Your task to perform on an android device: make emails show in primary in the gmail app Image 0: 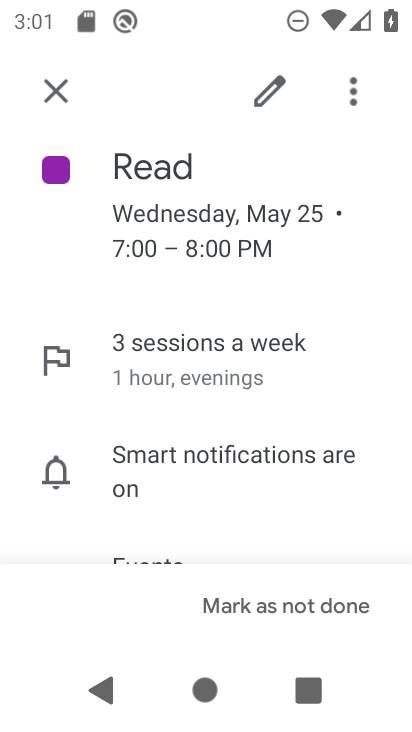
Step 0: press home button
Your task to perform on an android device: make emails show in primary in the gmail app Image 1: 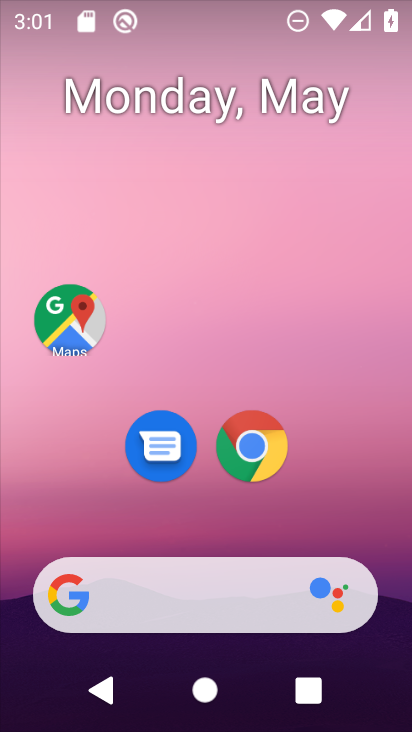
Step 1: drag from (203, 550) to (410, 212)
Your task to perform on an android device: make emails show in primary in the gmail app Image 2: 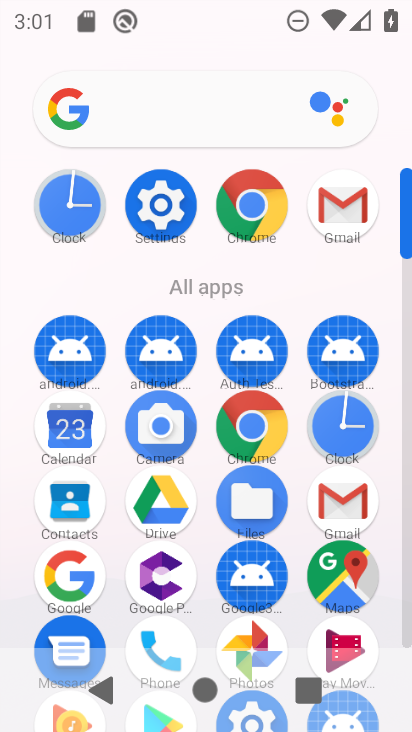
Step 2: click (336, 223)
Your task to perform on an android device: make emails show in primary in the gmail app Image 3: 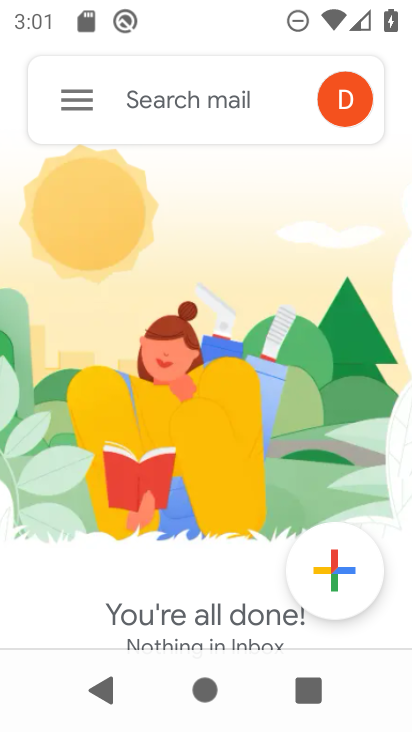
Step 3: click (118, 96)
Your task to perform on an android device: make emails show in primary in the gmail app Image 4: 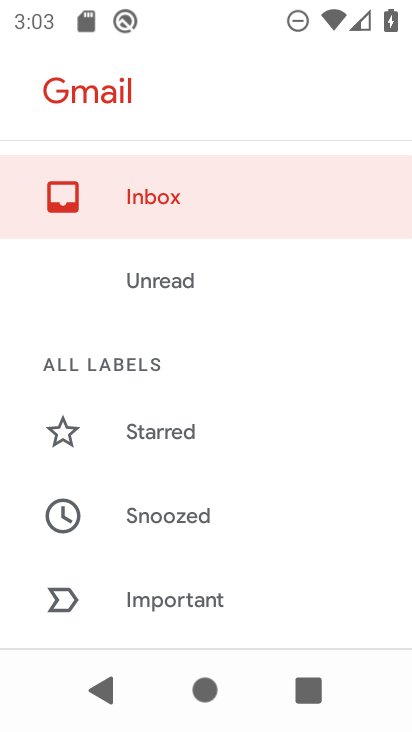
Step 4: task complete